Your task to perform on an android device: Open calendar and show me the first week of next month Image 0: 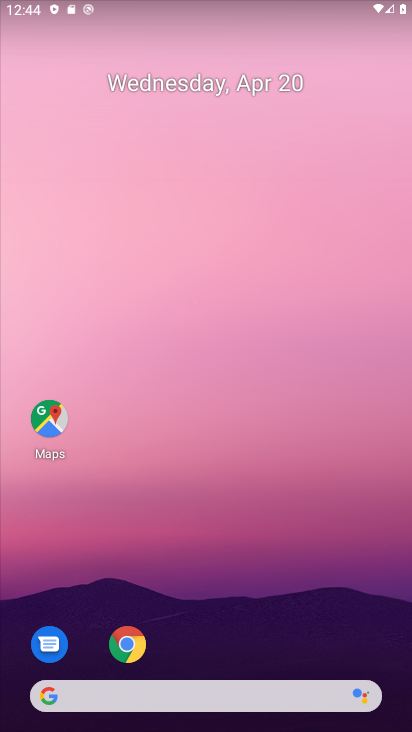
Step 0: drag from (292, 620) to (338, 59)
Your task to perform on an android device: Open calendar and show me the first week of next month Image 1: 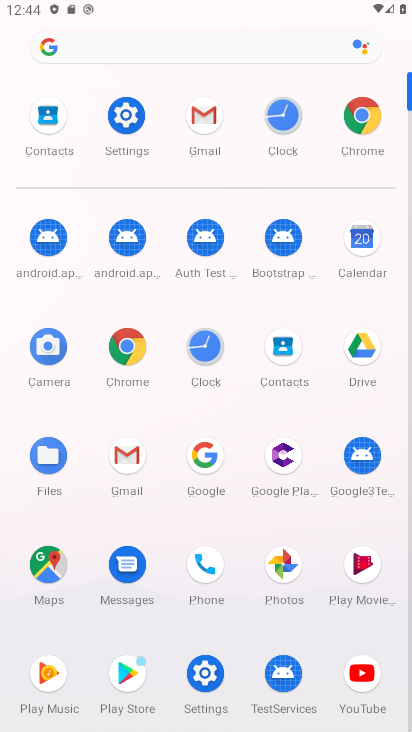
Step 1: click (360, 238)
Your task to perform on an android device: Open calendar and show me the first week of next month Image 2: 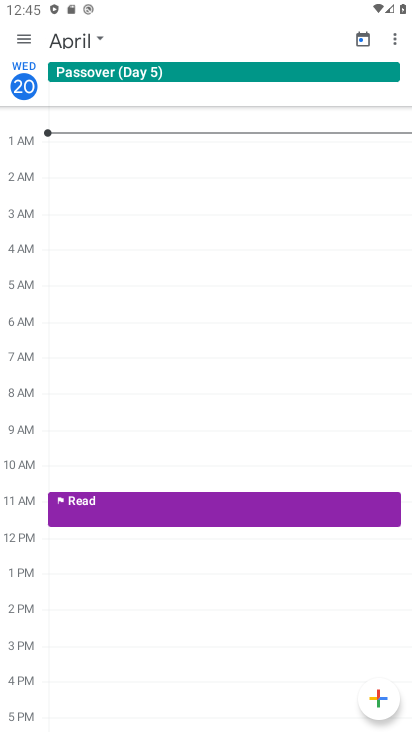
Step 2: click (23, 36)
Your task to perform on an android device: Open calendar and show me the first week of next month Image 3: 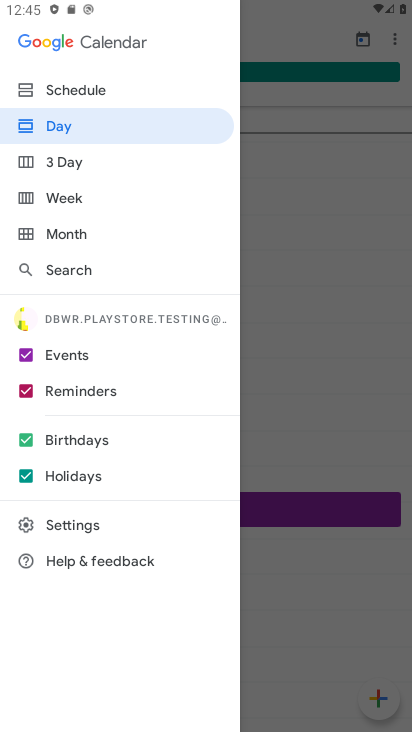
Step 3: click (26, 191)
Your task to perform on an android device: Open calendar and show me the first week of next month Image 4: 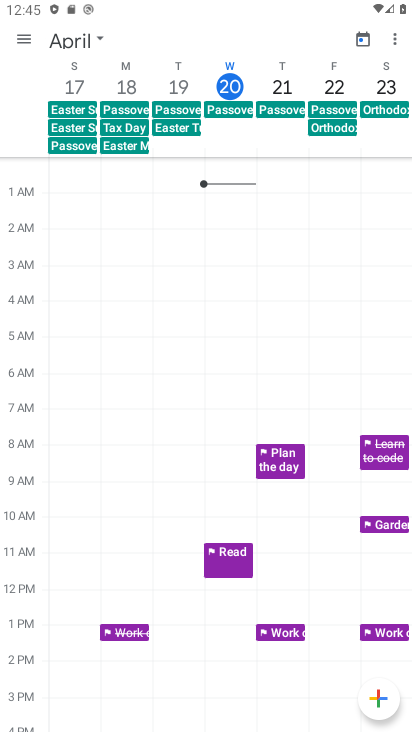
Step 4: task complete